Your task to perform on an android device: find snoozed emails in the gmail app Image 0: 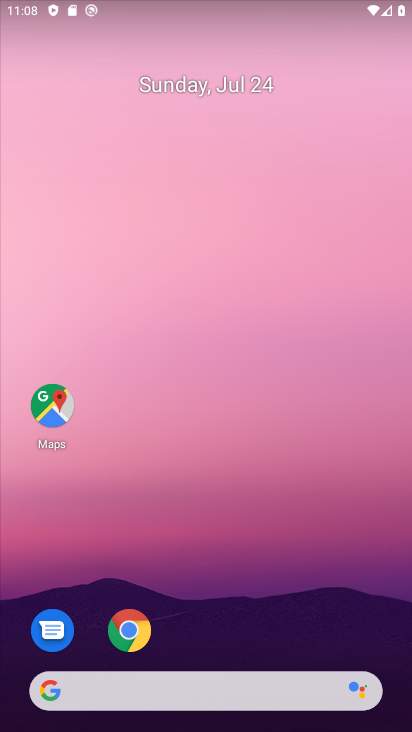
Step 0: drag from (255, 627) to (173, 69)
Your task to perform on an android device: find snoozed emails in the gmail app Image 1: 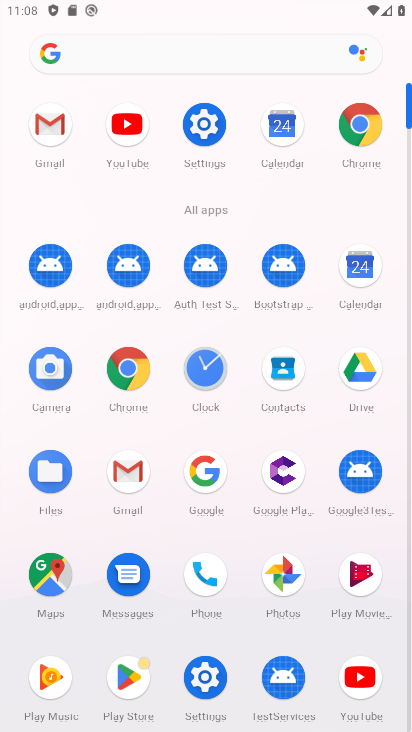
Step 1: click (37, 135)
Your task to perform on an android device: find snoozed emails in the gmail app Image 2: 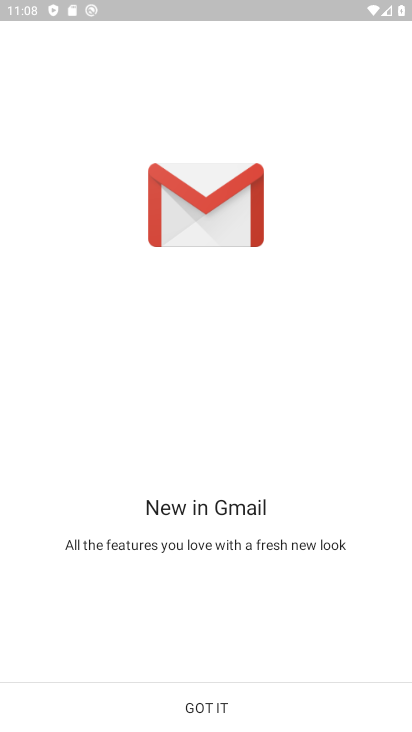
Step 2: click (208, 705)
Your task to perform on an android device: find snoozed emails in the gmail app Image 3: 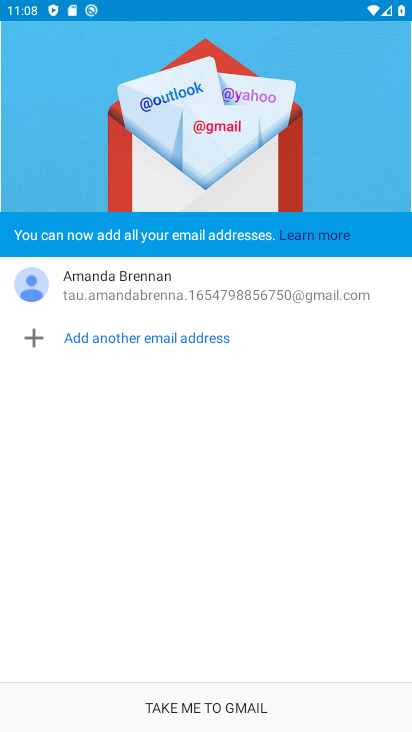
Step 3: click (246, 700)
Your task to perform on an android device: find snoozed emails in the gmail app Image 4: 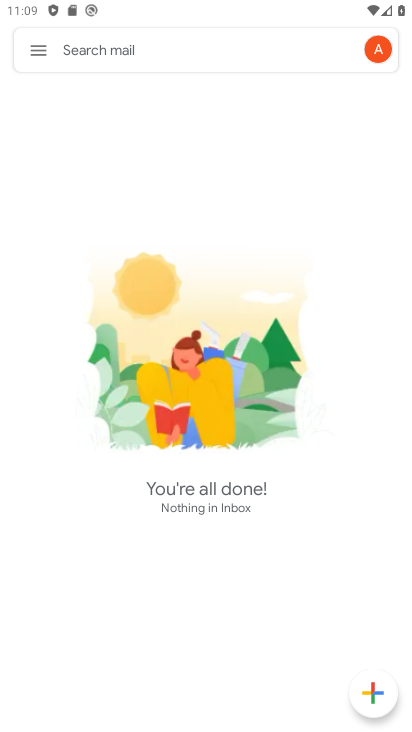
Step 4: click (36, 45)
Your task to perform on an android device: find snoozed emails in the gmail app Image 5: 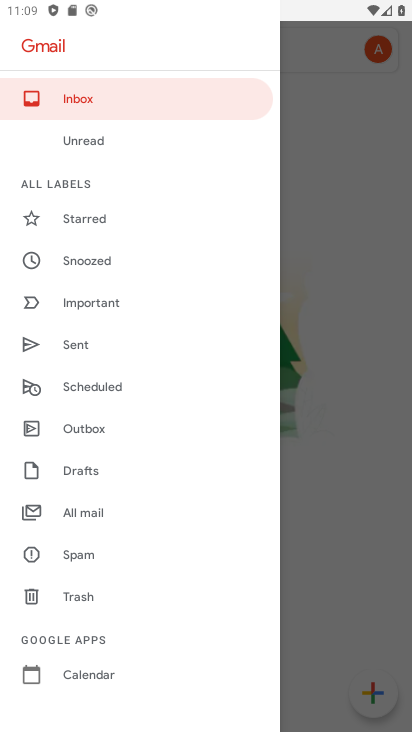
Step 5: click (113, 260)
Your task to perform on an android device: find snoozed emails in the gmail app Image 6: 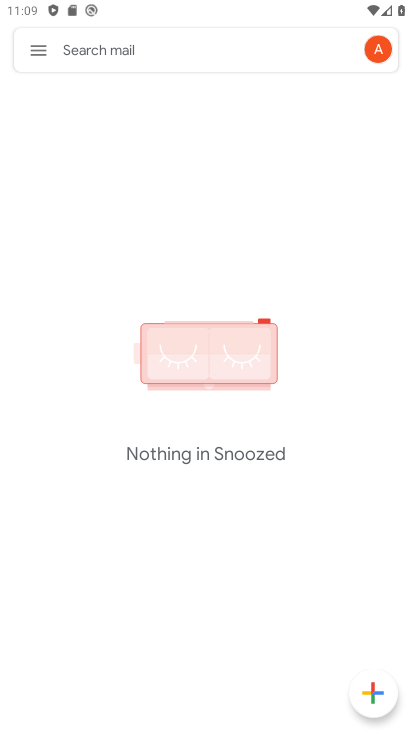
Step 6: task complete